Your task to perform on an android device: allow cookies in the chrome app Image 0: 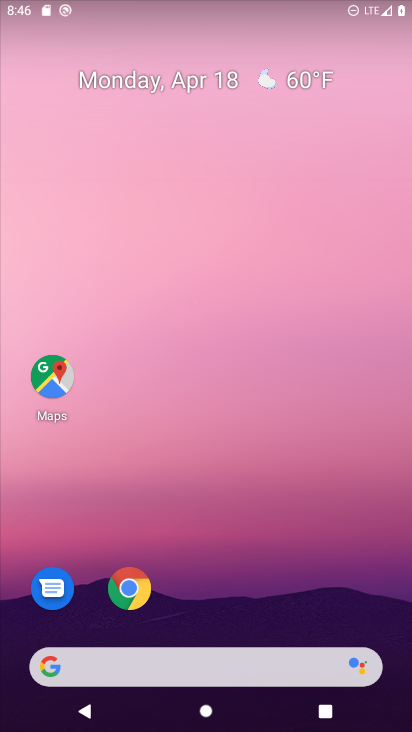
Step 0: click (130, 590)
Your task to perform on an android device: allow cookies in the chrome app Image 1: 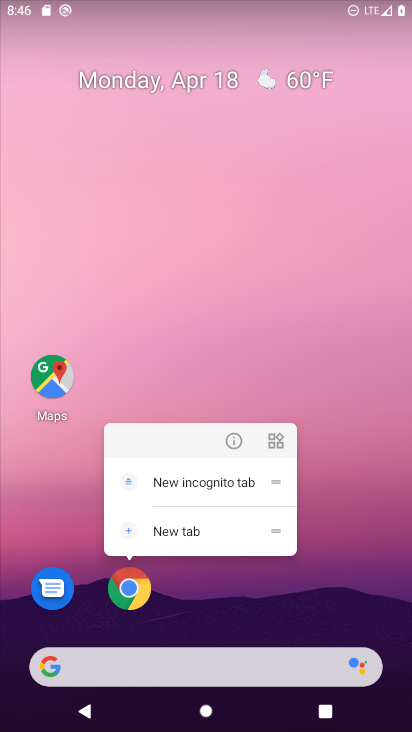
Step 1: click (130, 590)
Your task to perform on an android device: allow cookies in the chrome app Image 2: 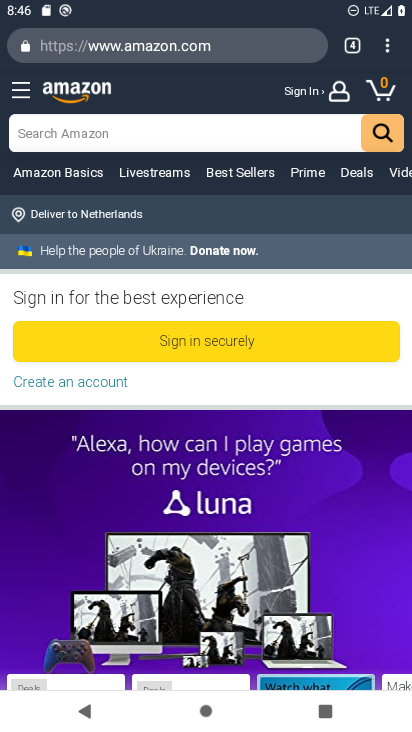
Step 2: click (386, 49)
Your task to perform on an android device: allow cookies in the chrome app Image 3: 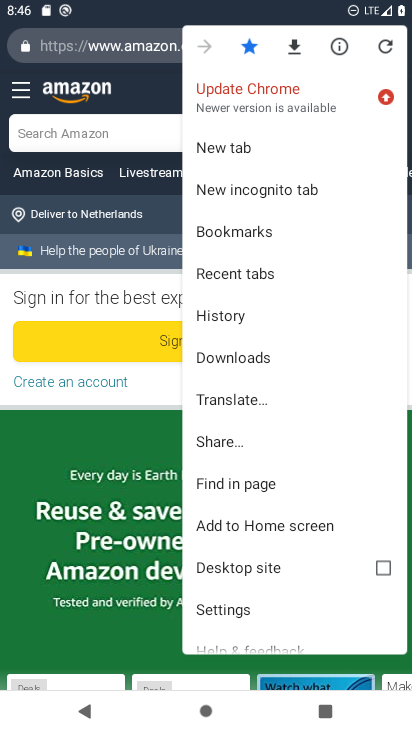
Step 3: drag from (332, 542) to (360, 331)
Your task to perform on an android device: allow cookies in the chrome app Image 4: 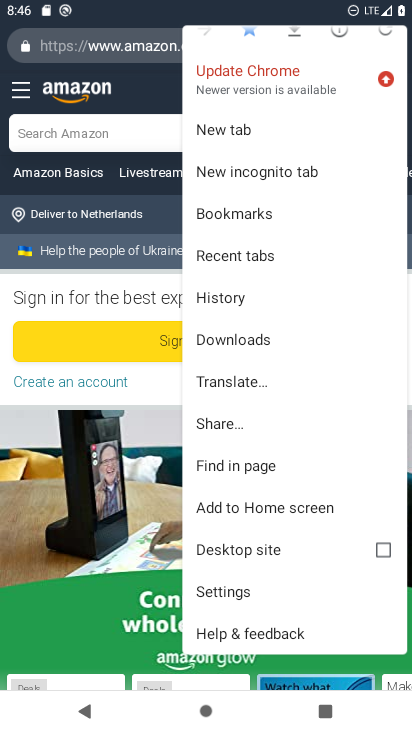
Step 4: click (227, 584)
Your task to perform on an android device: allow cookies in the chrome app Image 5: 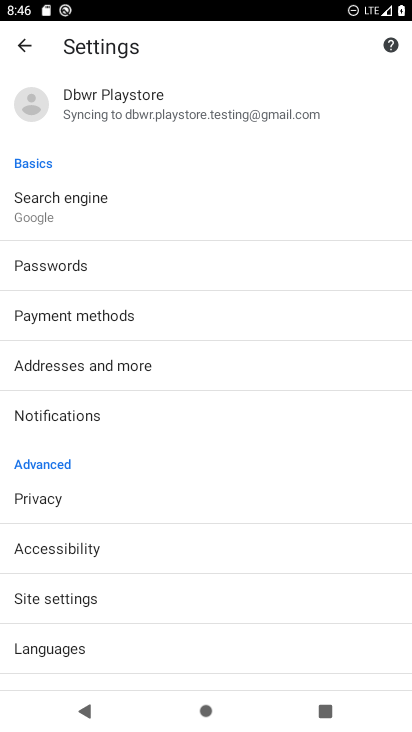
Step 5: click (70, 592)
Your task to perform on an android device: allow cookies in the chrome app Image 6: 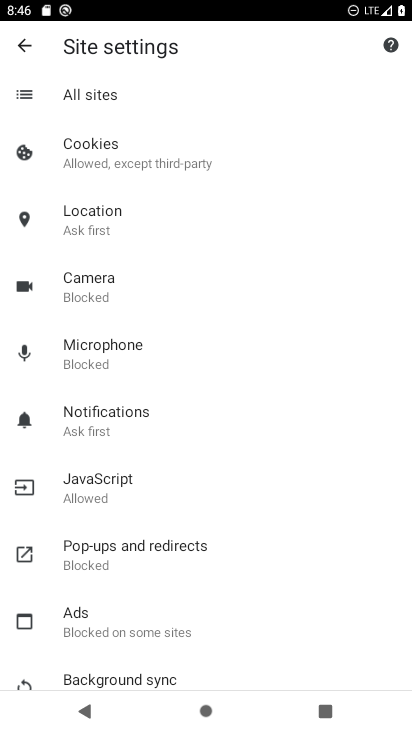
Step 6: click (88, 142)
Your task to perform on an android device: allow cookies in the chrome app Image 7: 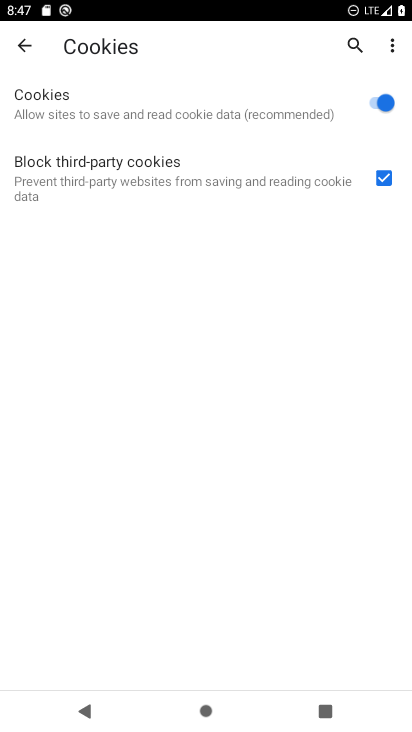
Step 7: task complete